Your task to perform on an android device: View the shopping cart on costco.com. Search for "logitech g903" on costco.com, select the first entry, and add it to the cart. Image 0: 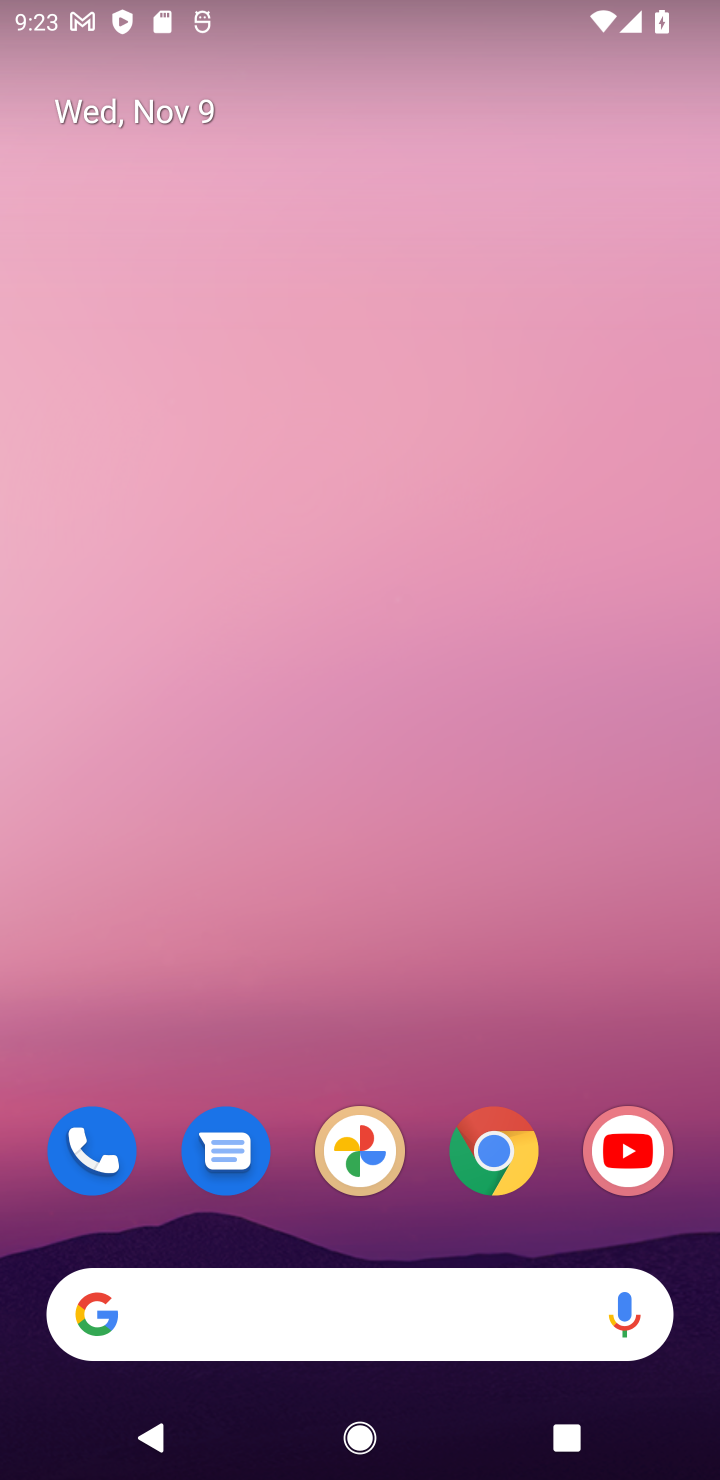
Step 0: click (499, 1145)
Your task to perform on an android device: View the shopping cart on costco.com. Search for "logitech g903" on costco.com, select the first entry, and add it to the cart. Image 1: 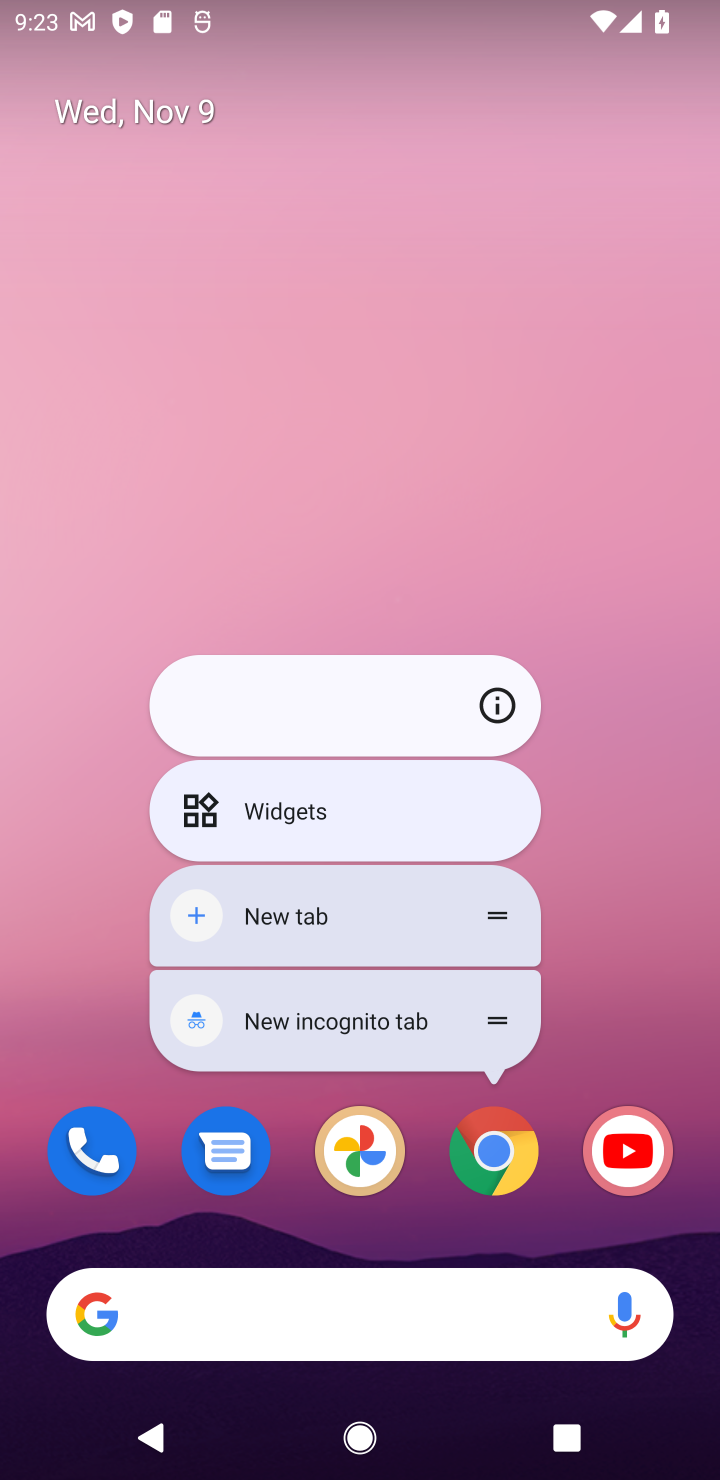
Step 1: click (498, 1143)
Your task to perform on an android device: View the shopping cart on costco.com. Search for "logitech g903" on costco.com, select the first entry, and add it to the cart. Image 2: 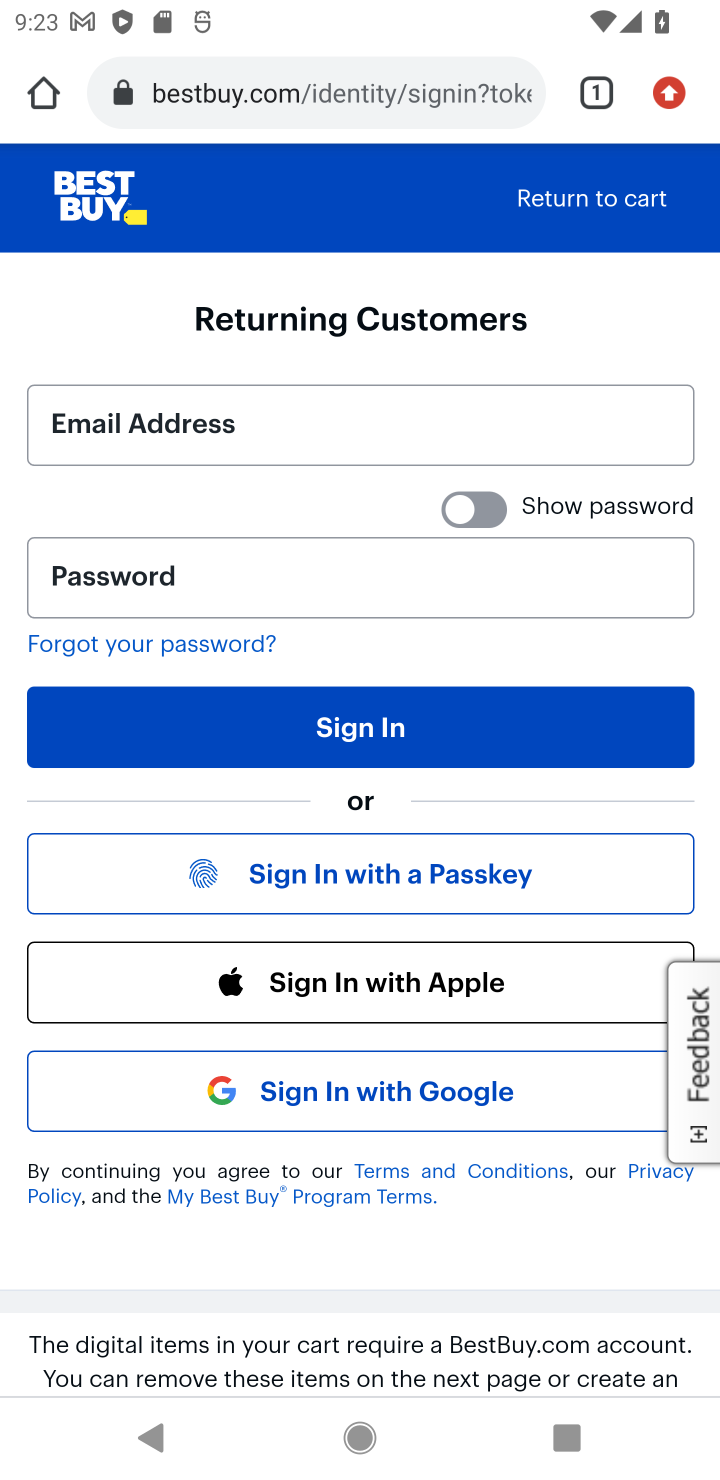
Step 2: click (232, 82)
Your task to perform on an android device: View the shopping cart on costco.com. Search for "logitech g903" on costco.com, select the first entry, and add it to the cart. Image 3: 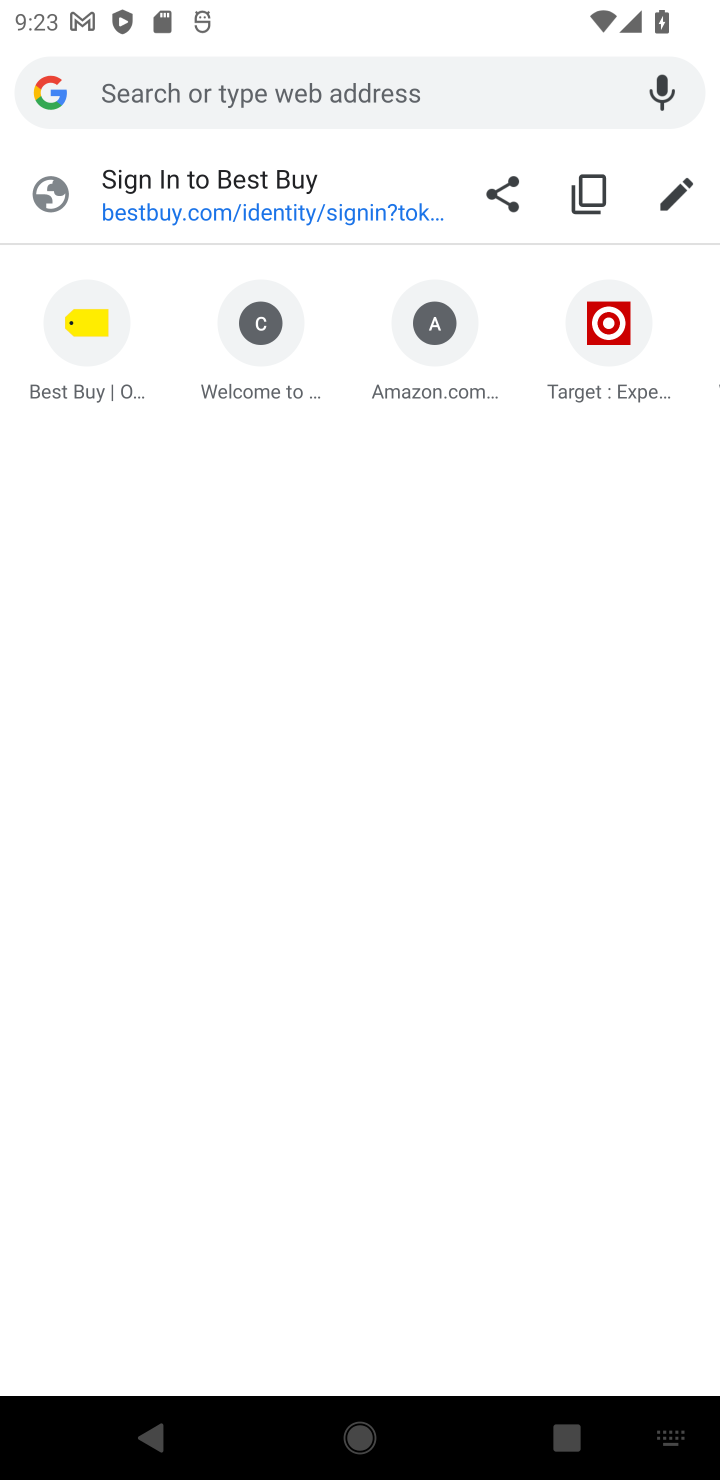
Step 3: type "costco.com"
Your task to perform on an android device: View the shopping cart on costco.com. Search for "logitech g903" on costco.com, select the first entry, and add it to the cart. Image 4: 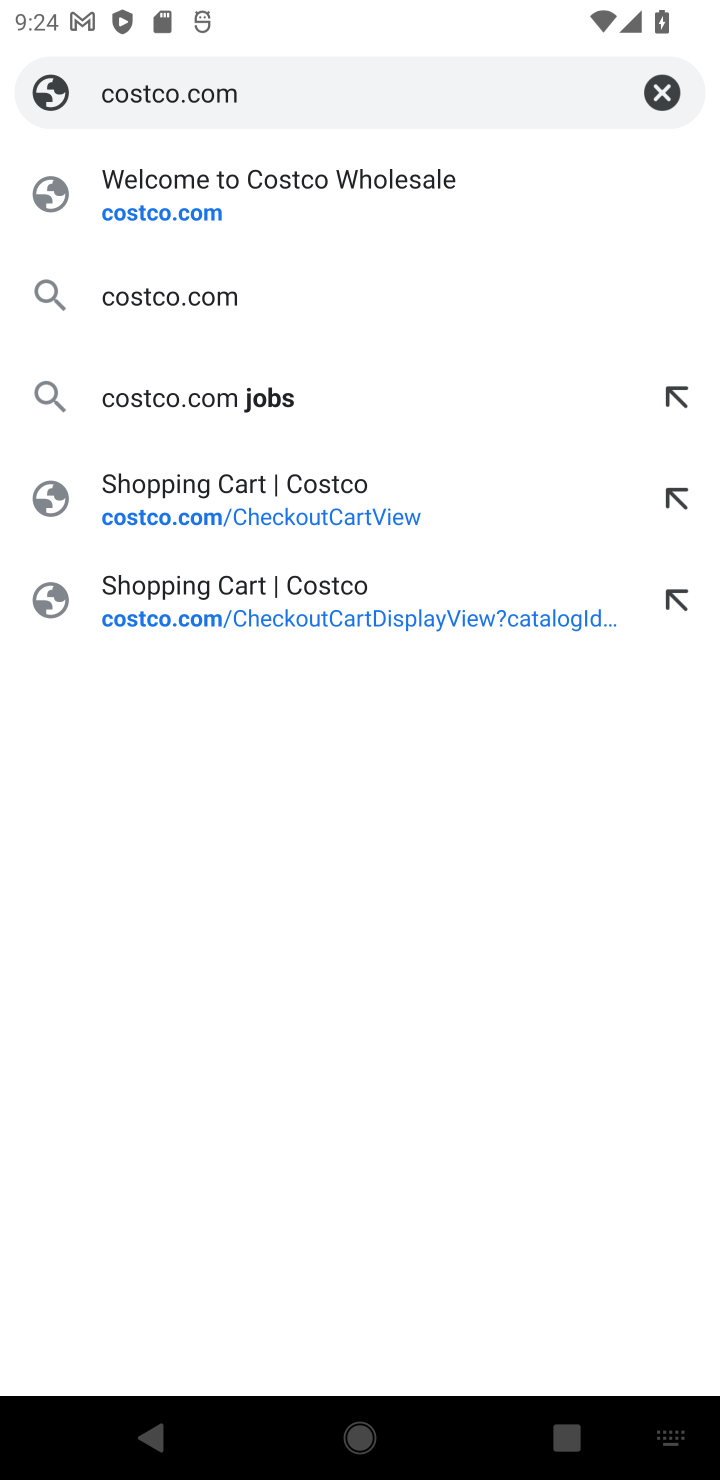
Step 4: click (398, 195)
Your task to perform on an android device: View the shopping cart on costco.com. Search for "logitech g903" on costco.com, select the first entry, and add it to the cart. Image 5: 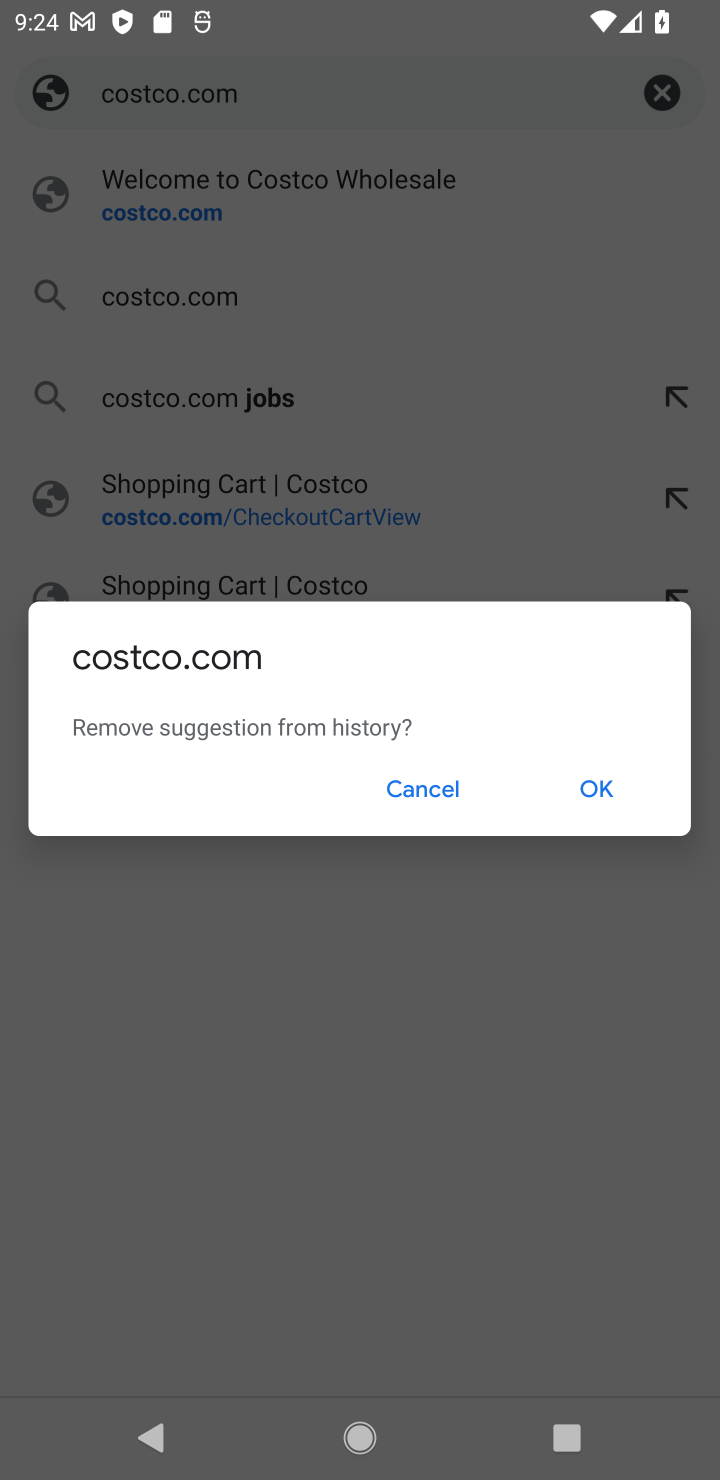
Step 5: click (425, 793)
Your task to perform on an android device: View the shopping cart on costco.com. Search for "logitech g903" on costco.com, select the first entry, and add it to the cart. Image 6: 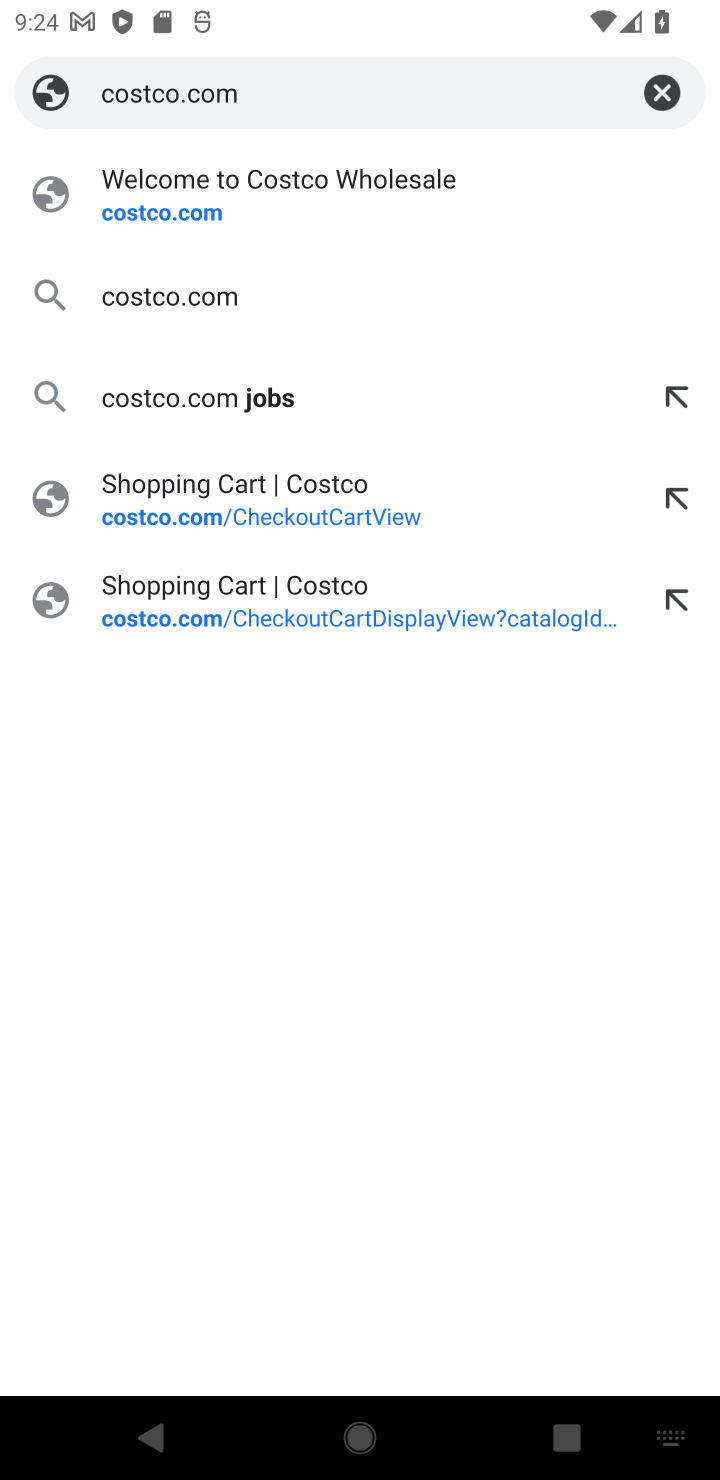
Step 6: press enter
Your task to perform on an android device: View the shopping cart on costco.com. Search for "logitech g903" on costco.com, select the first entry, and add it to the cart. Image 7: 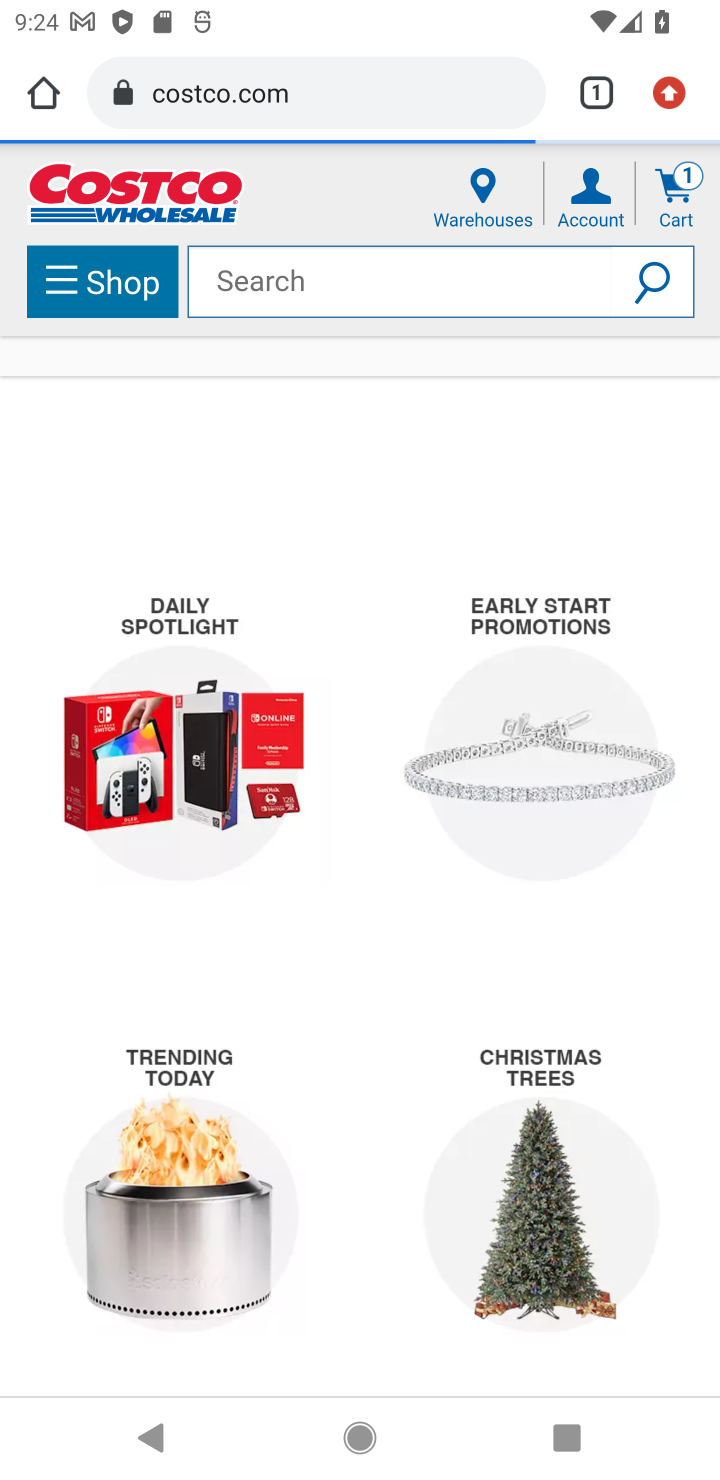
Step 7: click (659, 201)
Your task to perform on an android device: View the shopping cart on costco.com. Search for "logitech g903" on costco.com, select the first entry, and add it to the cart. Image 8: 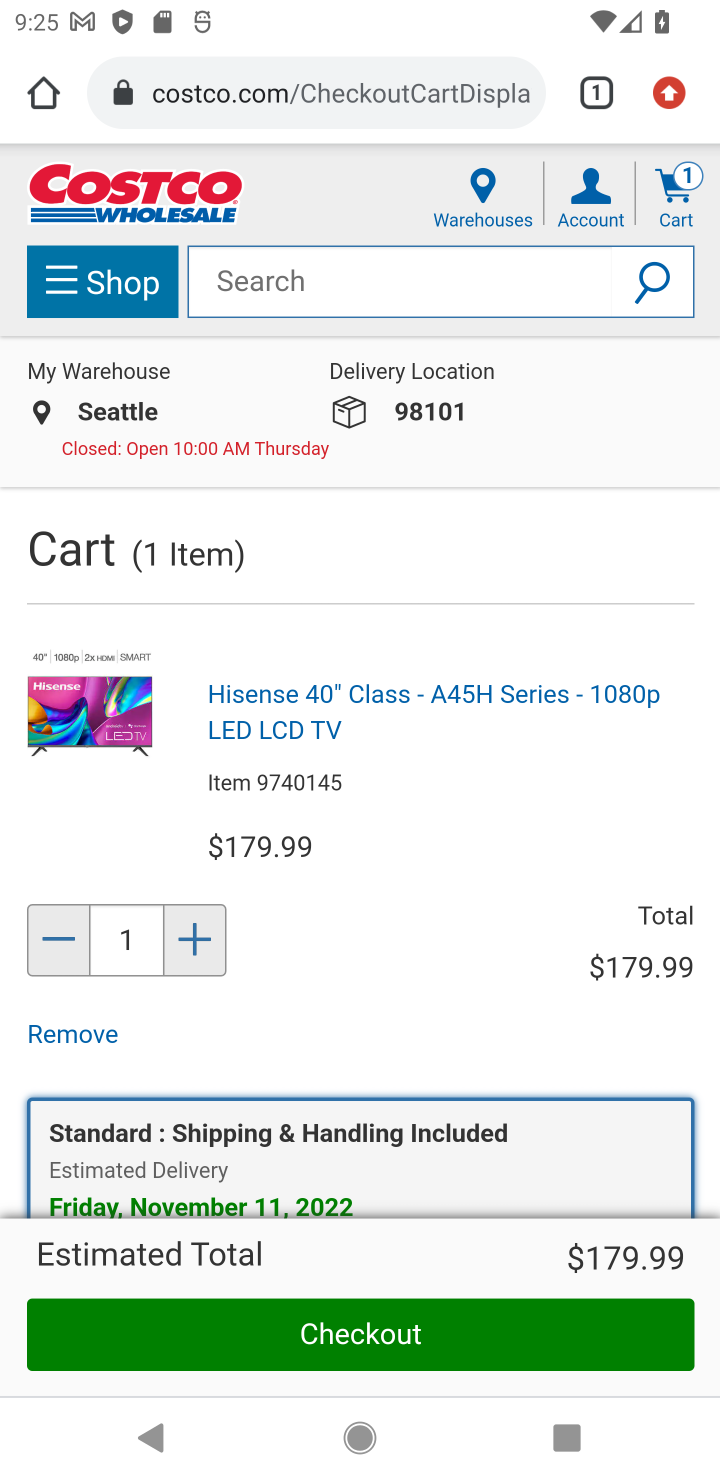
Step 8: click (287, 296)
Your task to perform on an android device: View the shopping cart on costco.com. Search for "logitech g903" on costco.com, select the first entry, and add it to the cart. Image 9: 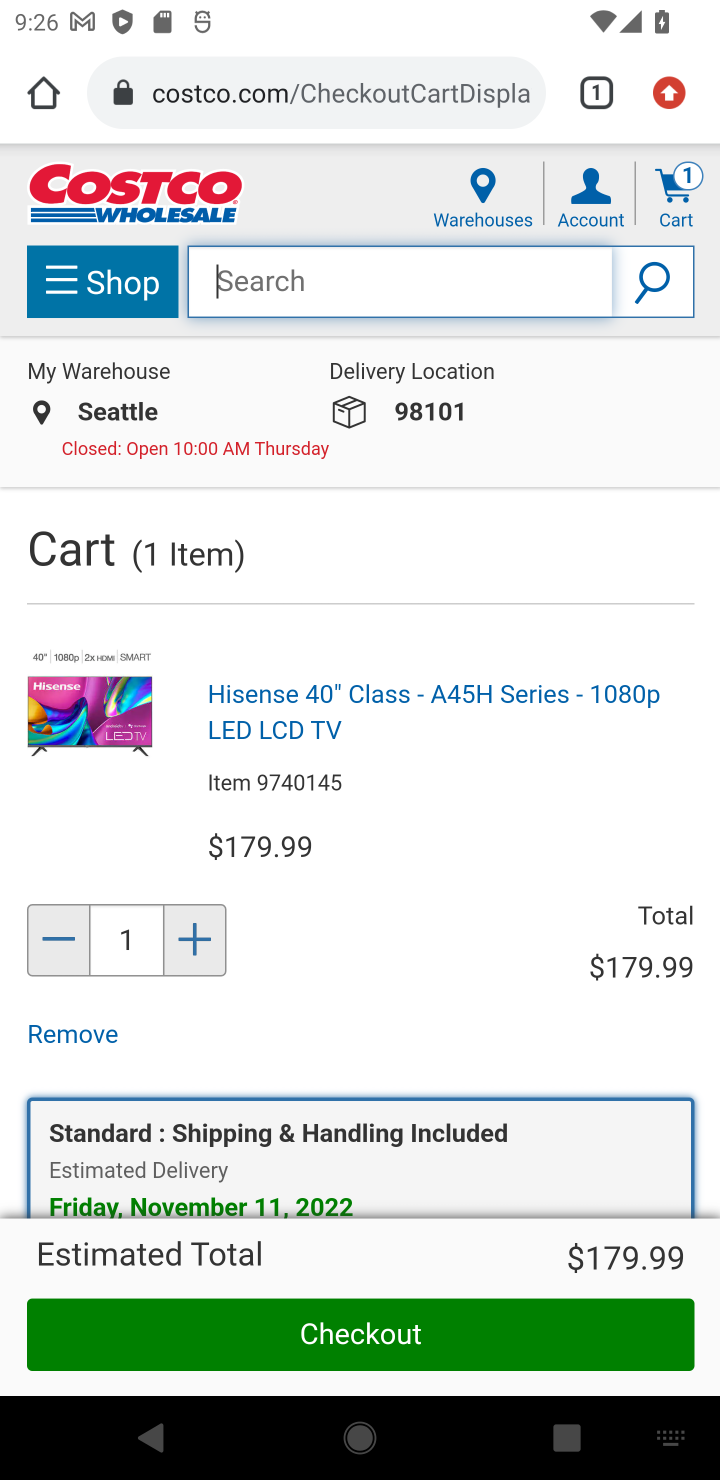
Step 9: type "logitech g903"
Your task to perform on an android device: View the shopping cart on costco.com. Search for "logitech g903" on costco.com, select the first entry, and add it to the cart. Image 10: 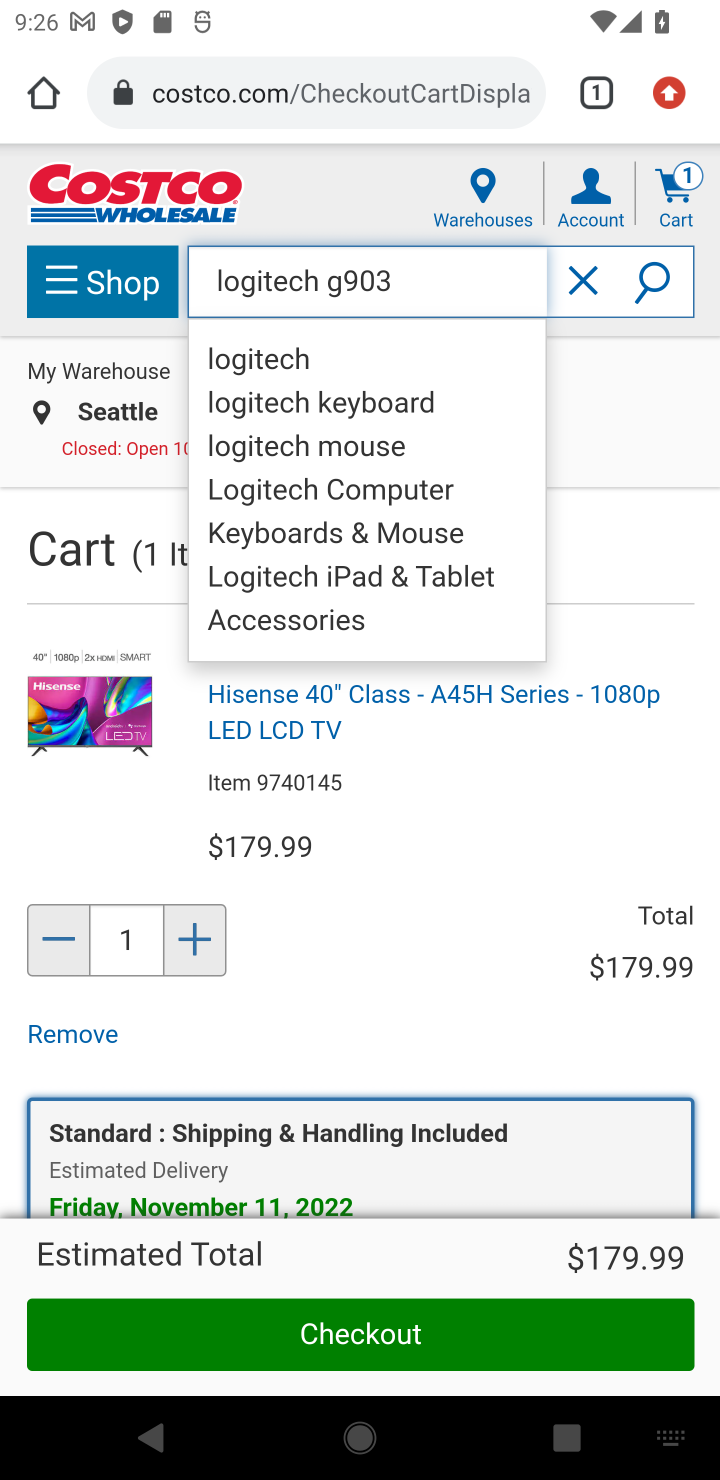
Step 10: press enter
Your task to perform on an android device: View the shopping cart on costco.com. Search for "logitech g903" on costco.com, select the first entry, and add it to the cart. Image 11: 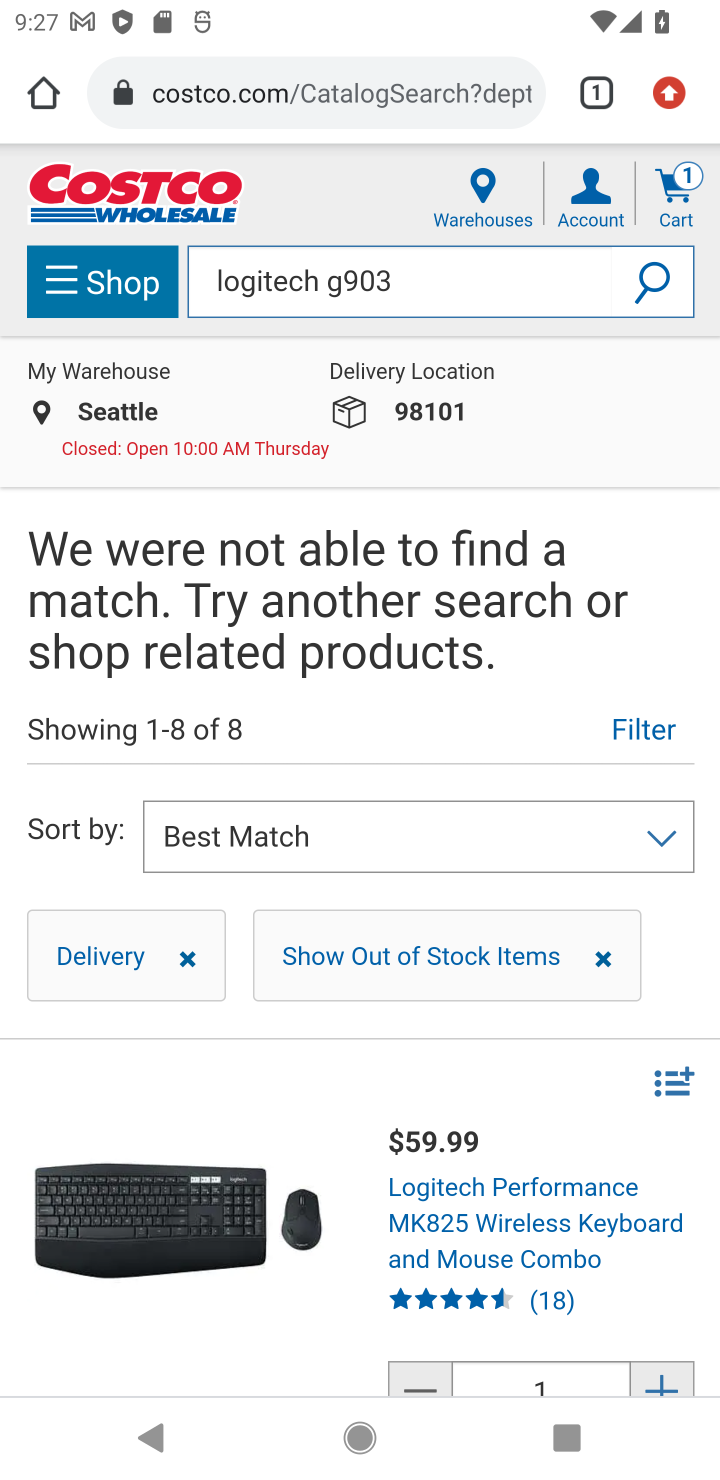
Step 11: click (416, 1221)
Your task to perform on an android device: View the shopping cart on costco.com. Search for "logitech g903" on costco.com, select the first entry, and add it to the cart. Image 12: 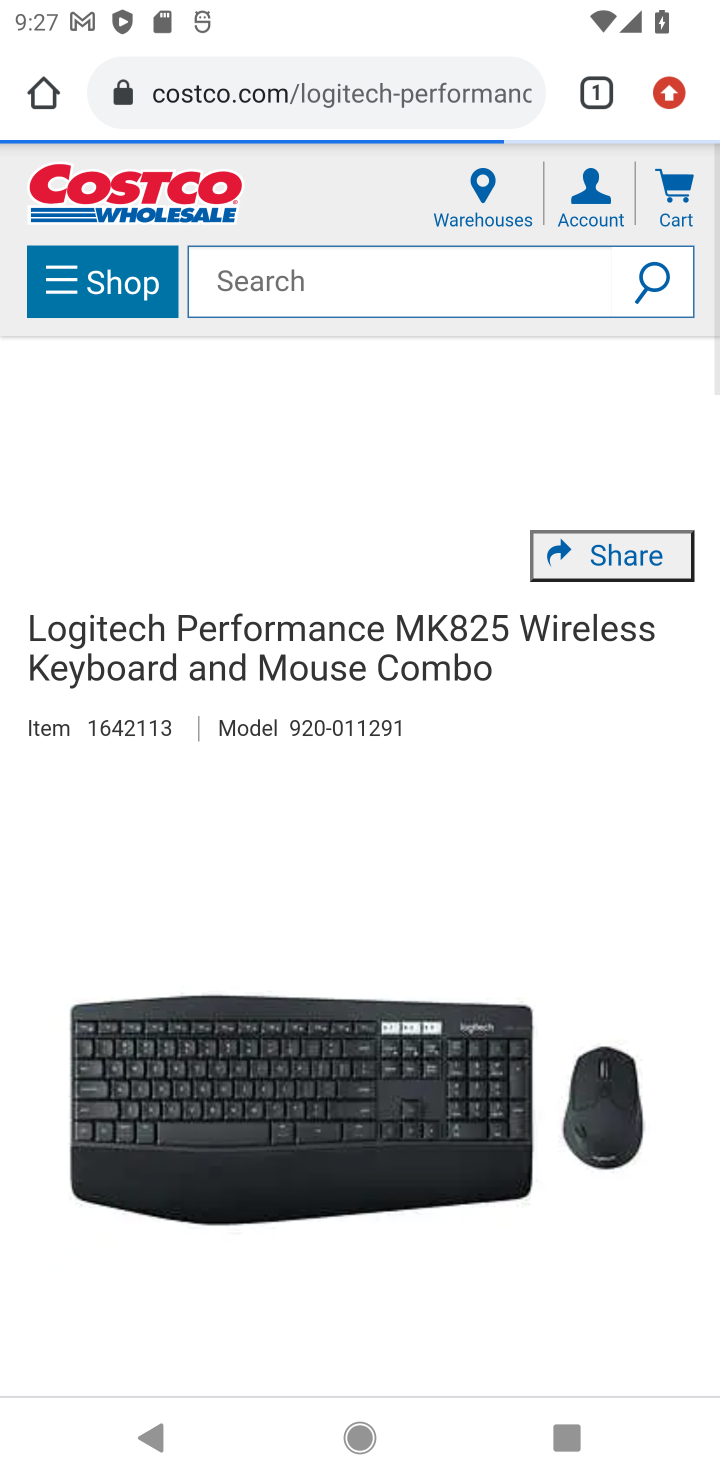
Step 12: drag from (426, 1299) to (457, 742)
Your task to perform on an android device: View the shopping cart on costco.com. Search for "logitech g903" on costco.com, select the first entry, and add it to the cart. Image 13: 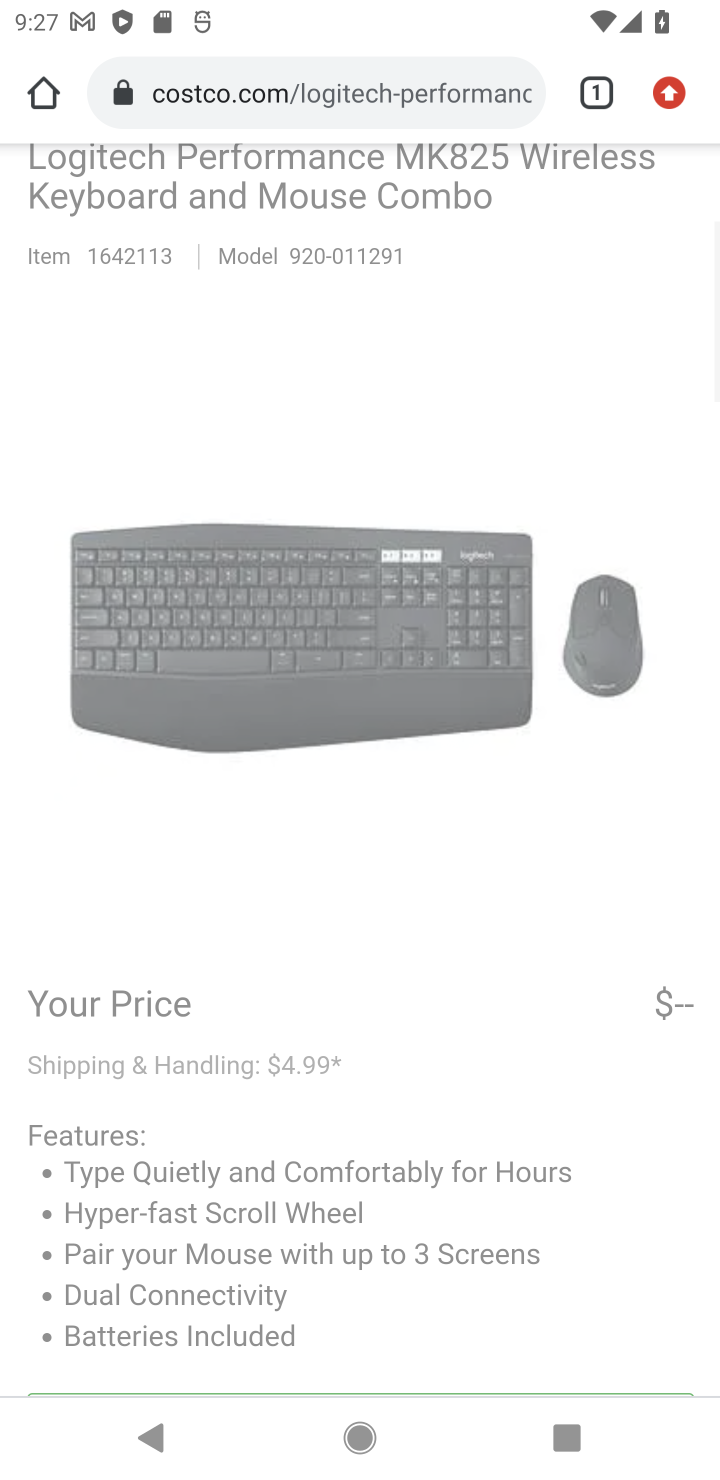
Step 13: drag from (399, 1244) to (399, 843)
Your task to perform on an android device: View the shopping cart on costco.com. Search for "logitech g903" on costco.com, select the first entry, and add it to the cart. Image 14: 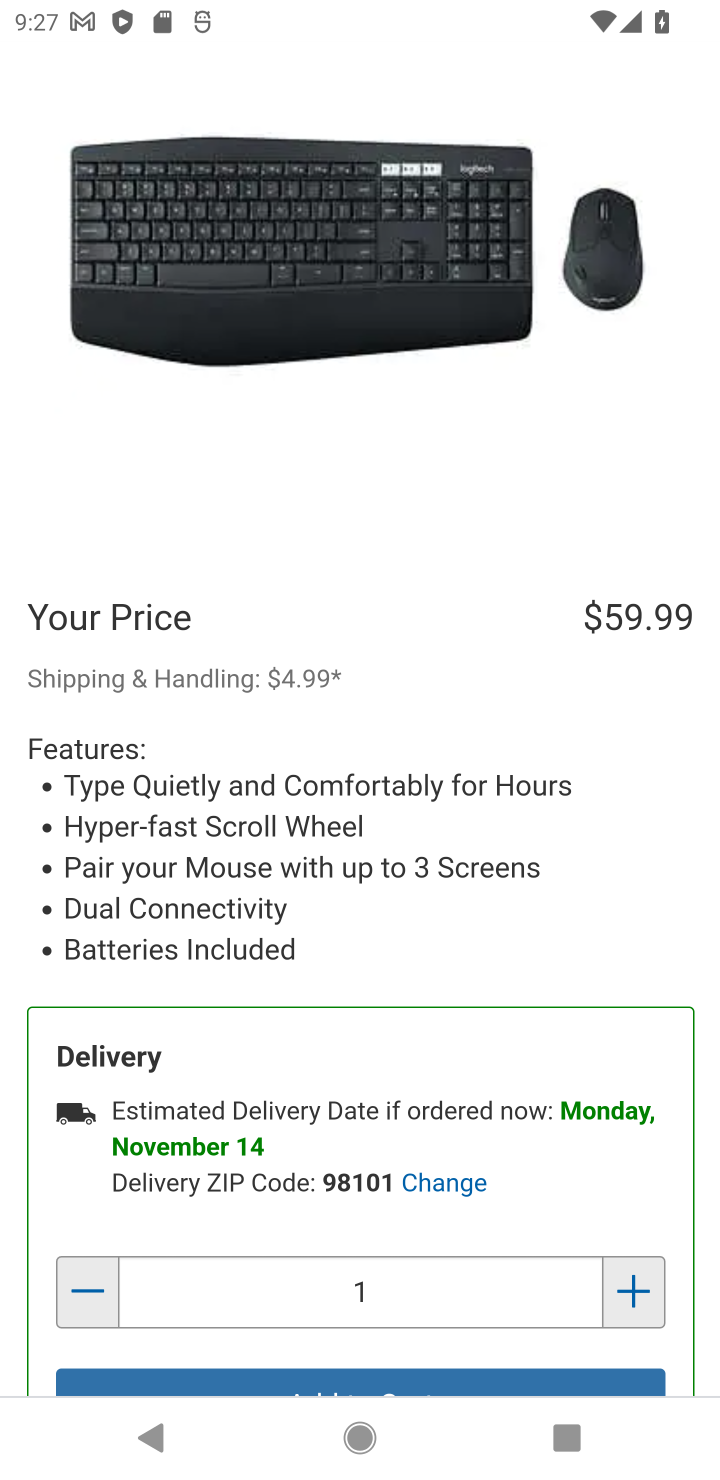
Step 14: drag from (463, 924) to (497, 770)
Your task to perform on an android device: View the shopping cart on costco.com. Search for "logitech g903" on costco.com, select the first entry, and add it to the cart. Image 15: 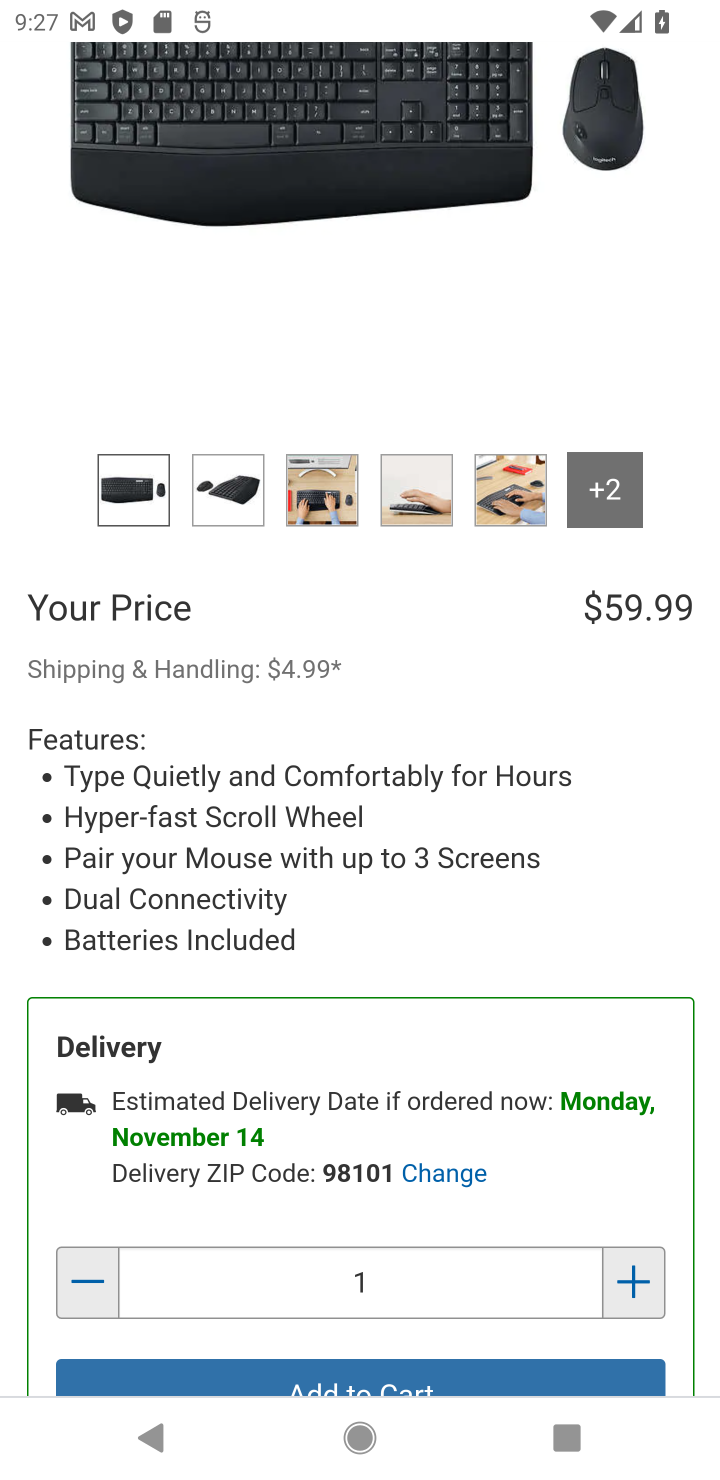
Step 15: click (320, 1387)
Your task to perform on an android device: View the shopping cart on costco.com. Search for "logitech g903" on costco.com, select the first entry, and add it to the cart. Image 16: 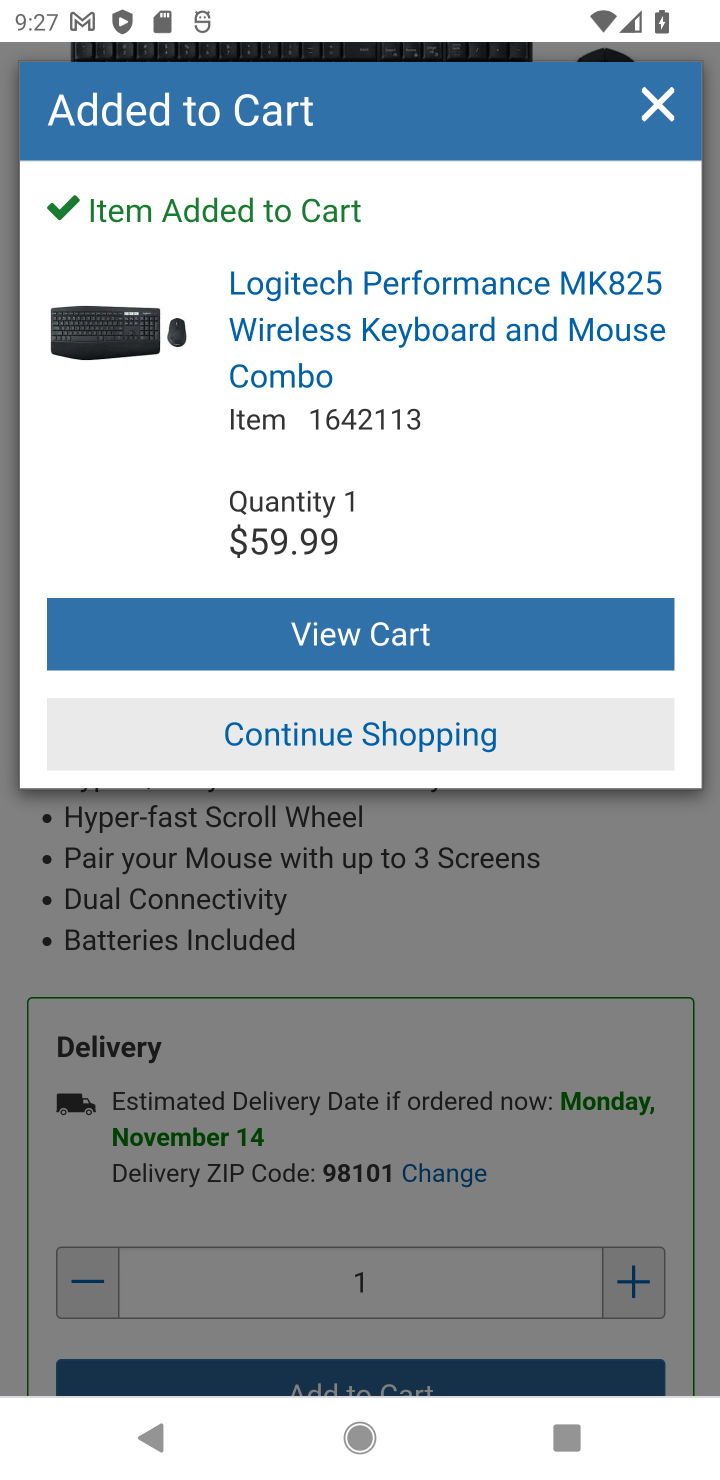
Step 16: click (373, 633)
Your task to perform on an android device: View the shopping cart on costco.com. Search for "logitech g903" on costco.com, select the first entry, and add it to the cart. Image 17: 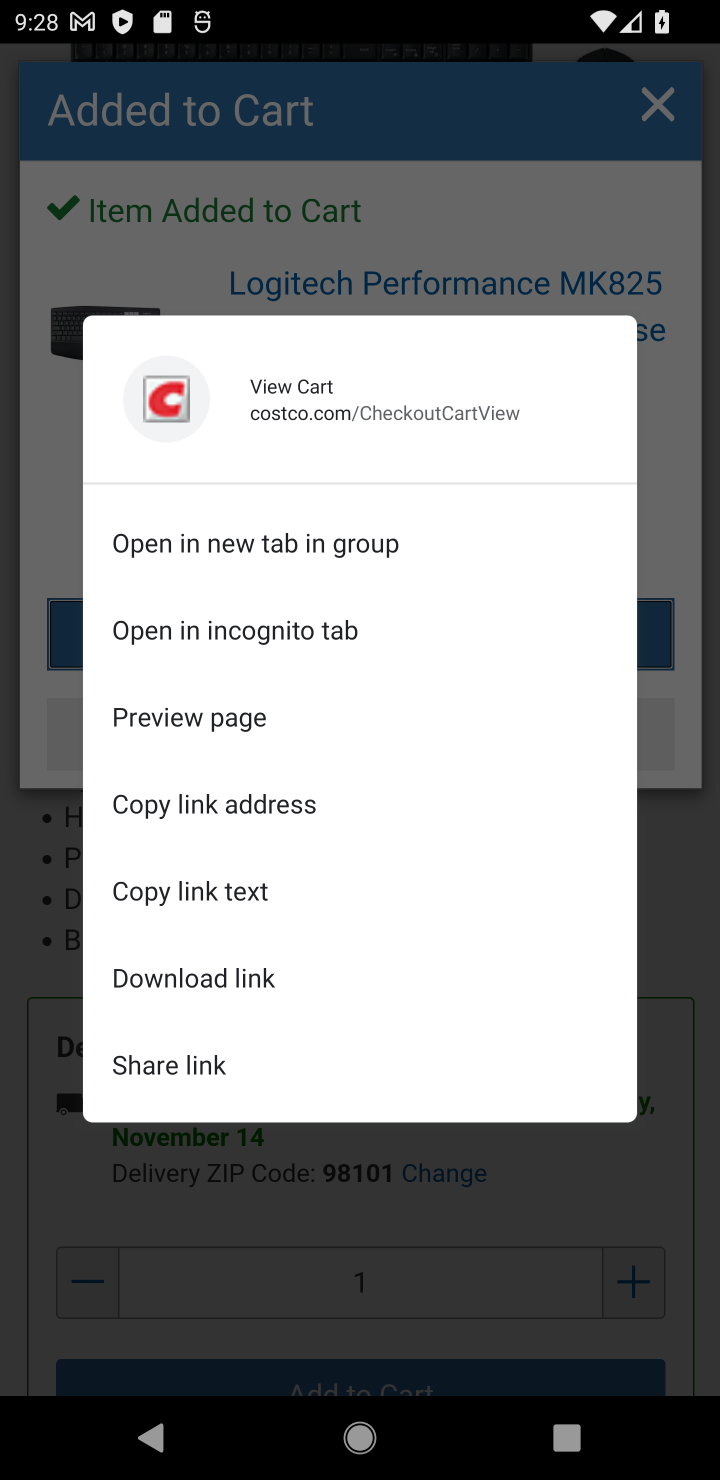
Step 17: click (683, 543)
Your task to perform on an android device: View the shopping cart on costco.com. Search for "logitech g903" on costco.com, select the first entry, and add it to the cart. Image 18: 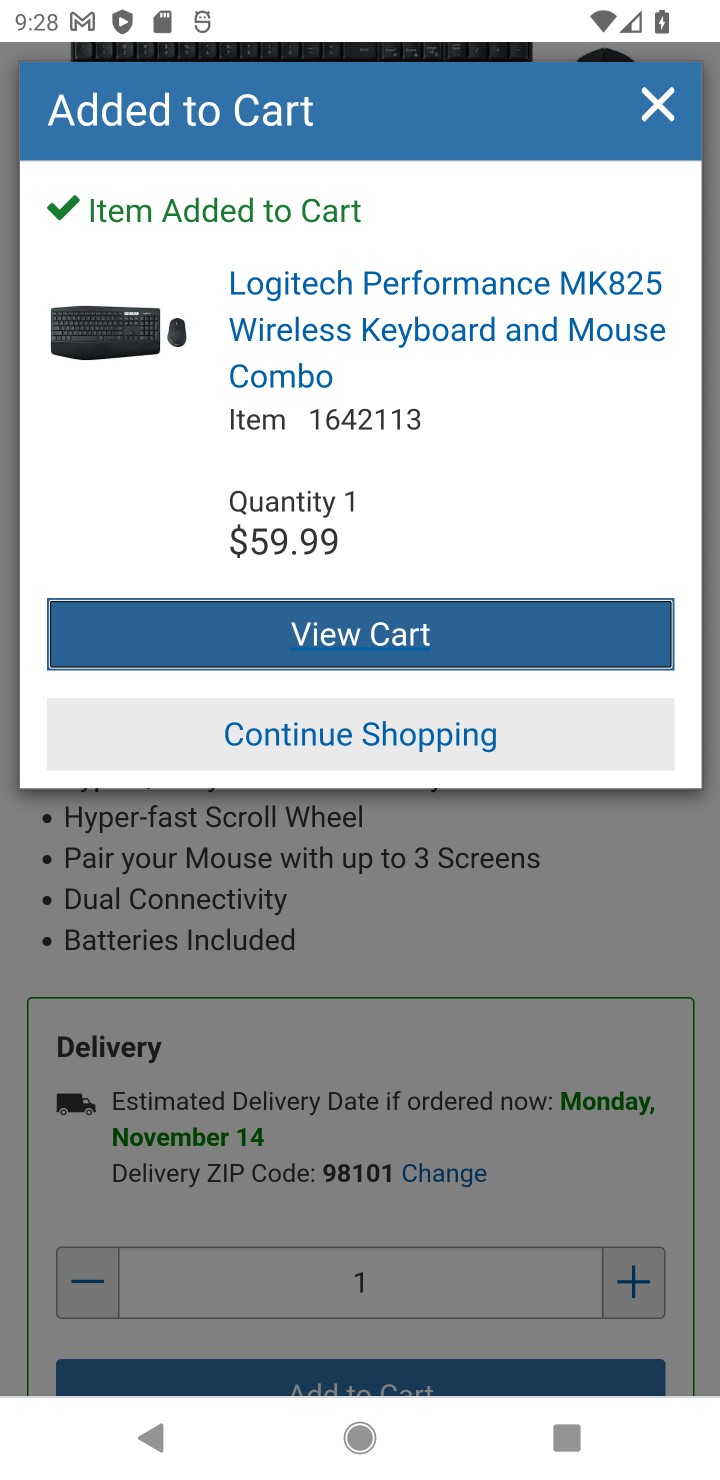
Step 18: click (525, 640)
Your task to perform on an android device: View the shopping cart on costco.com. Search for "logitech g903" on costco.com, select the first entry, and add it to the cart. Image 19: 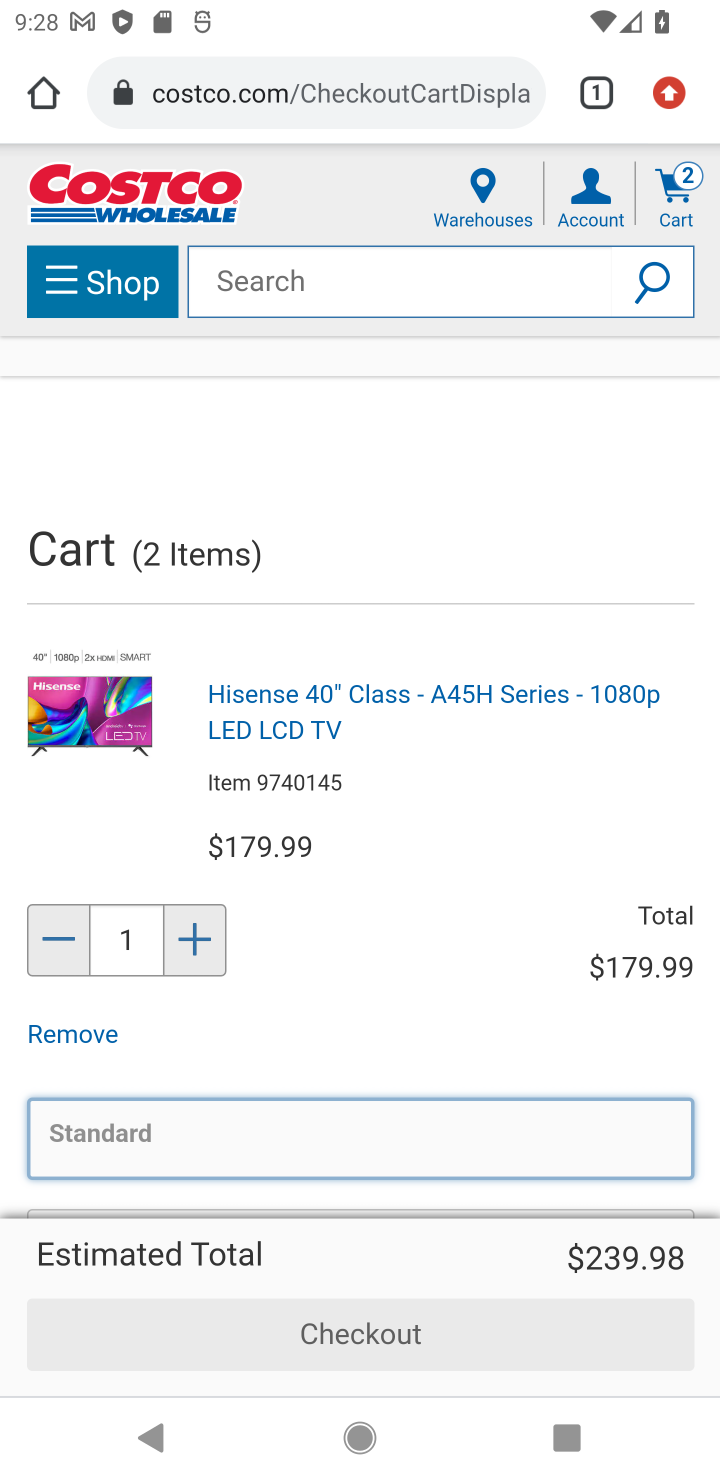
Step 19: task complete